Your task to perform on an android device: set the timer Image 0: 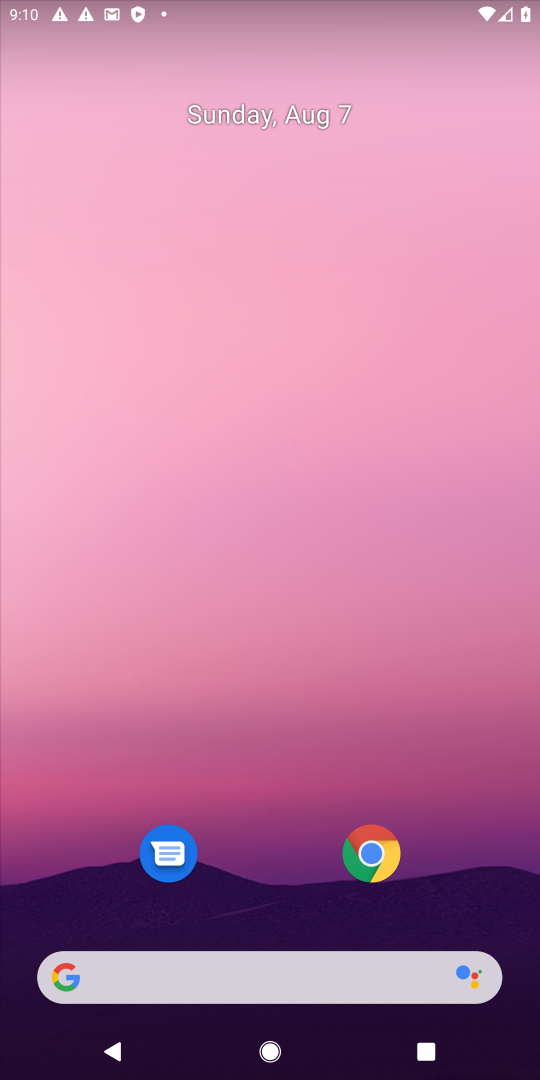
Step 0: press home button
Your task to perform on an android device: set the timer Image 1: 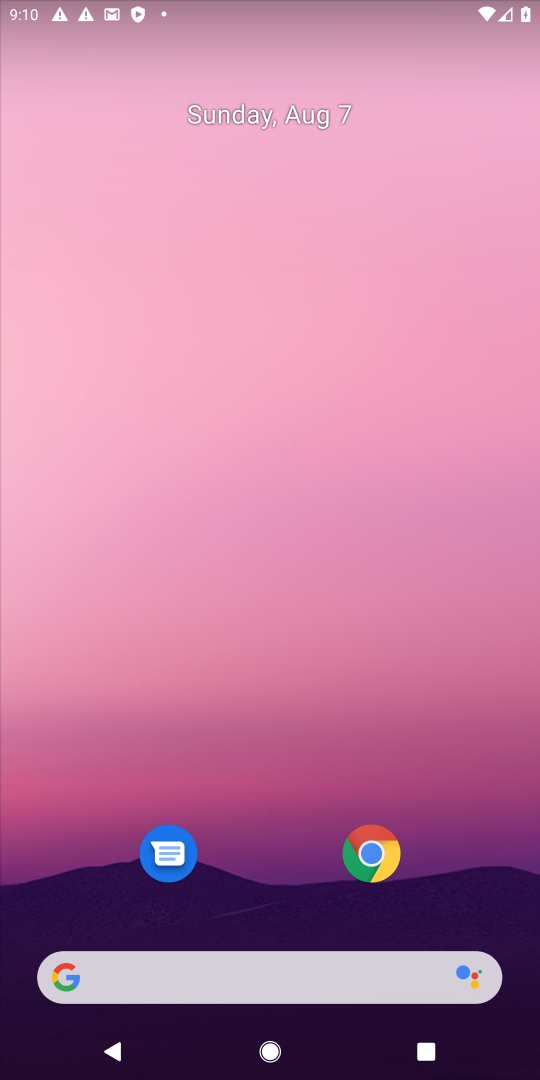
Step 1: drag from (486, 863) to (483, 323)
Your task to perform on an android device: set the timer Image 2: 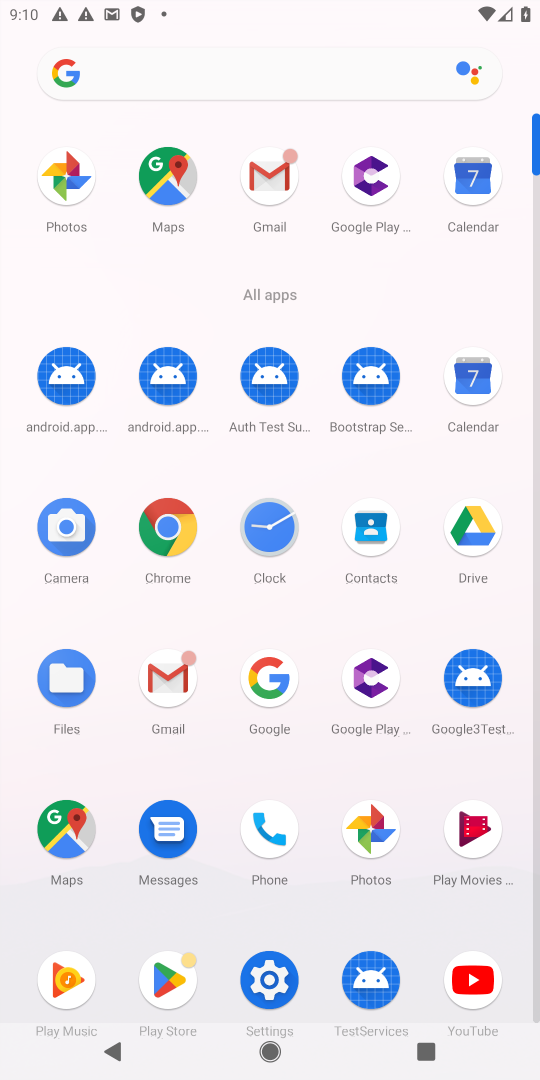
Step 2: click (266, 546)
Your task to perform on an android device: set the timer Image 3: 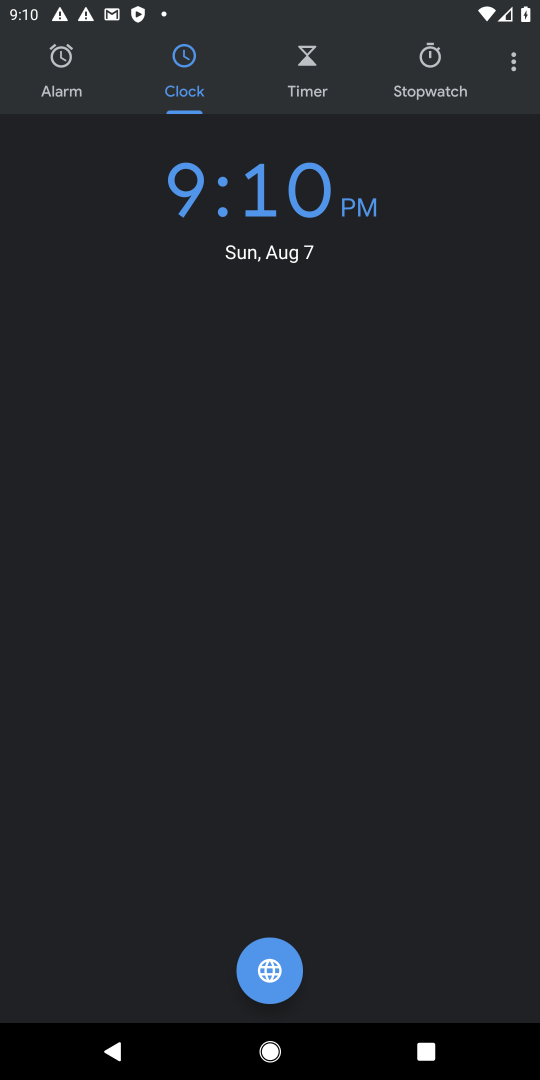
Step 3: click (306, 81)
Your task to perform on an android device: set the timer Image 4: 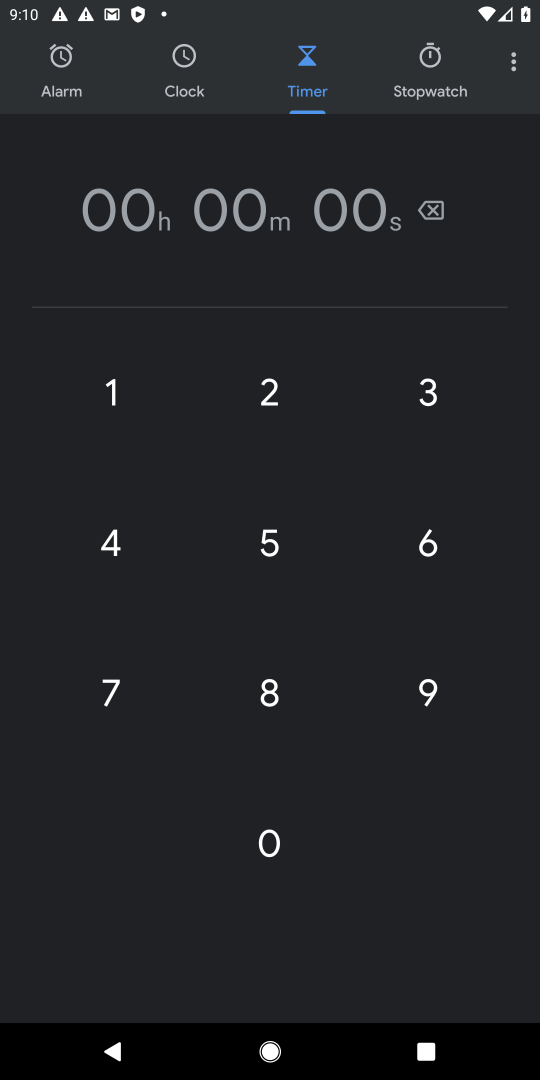
Step 4: click (268, 555)
Your task to perform on an android device: set the timer Image 5: 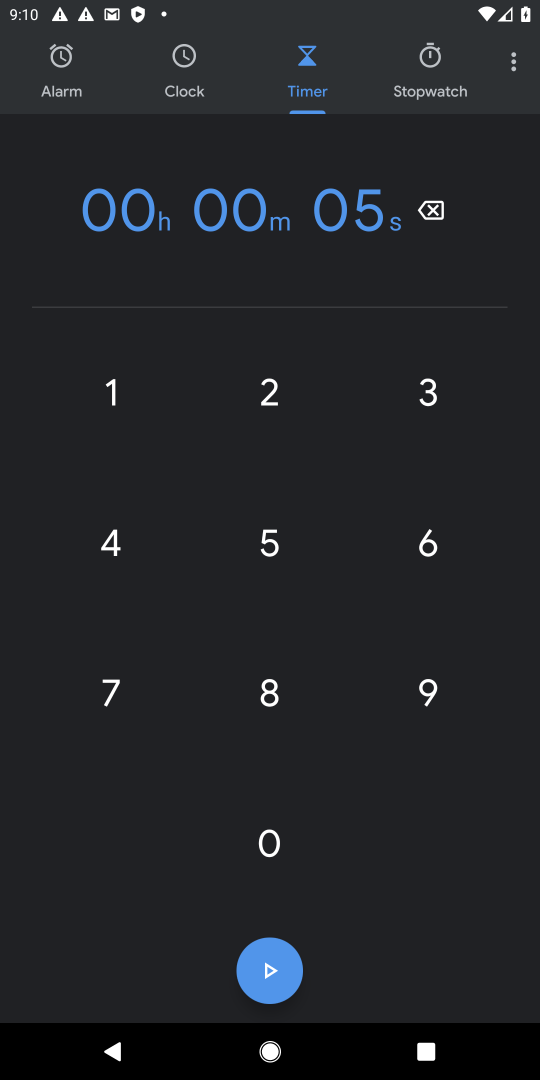
Step 5: task complete